Your task to perform on an android device: toggle javascript in the chrome app Image 0: 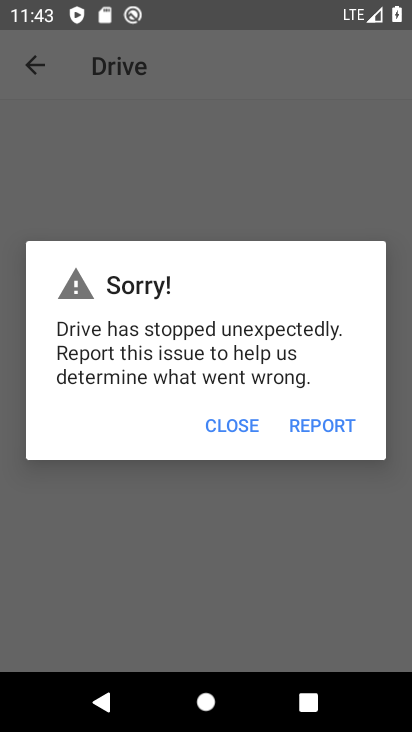
Step 0: drag from (322, 533) to (335, 126)
Your task to perform on an android device: toggle javascript in the chrome app Image 1: 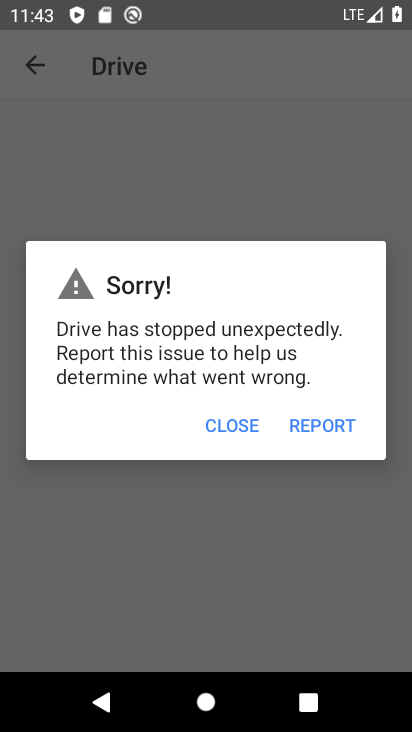
Step 1: press home button
Your task to perform on an android device: toggle javascript in the chrome app Image 2: 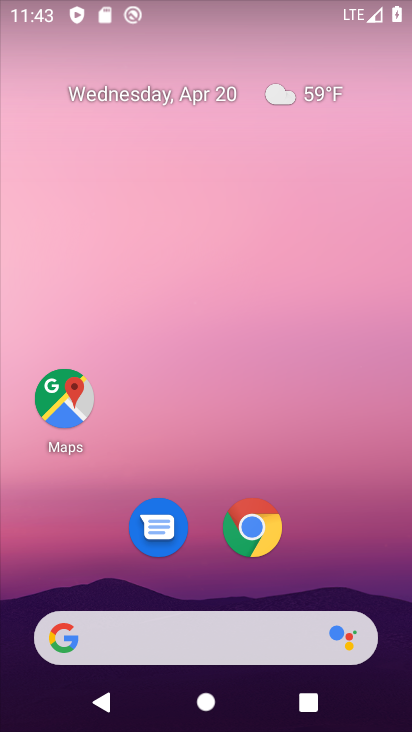
Step 2: drag from (380, 547) to (392, 148)
Your task to perform on an android device: toggle javascript in the chrome app Image 3: 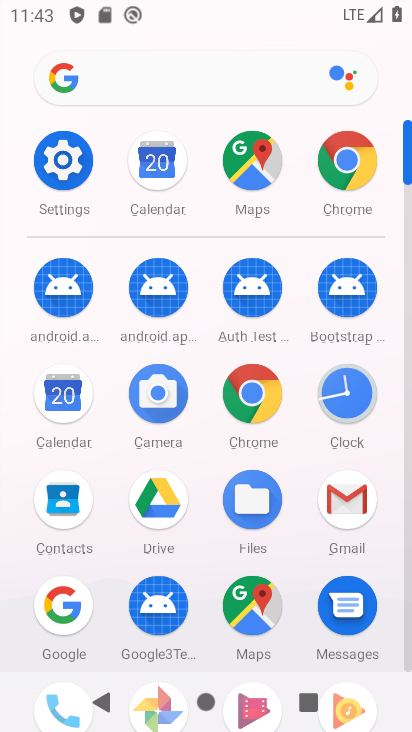
Step 3: click (269, 405)
Your task to perform on an android device: toggle javascript in the chrome app Image 4: 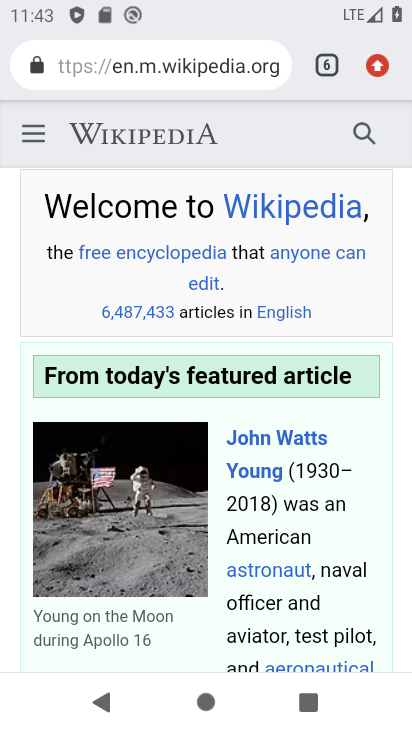
Step 4: drag from (387, 74) to (217, 566)
Your task to perform on an android device: toggle javascript in the chrome app Image 5: 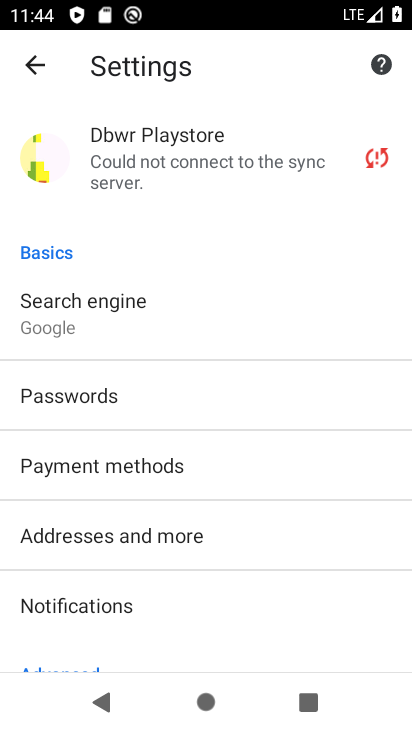
Step 5: drag from (280, 575) to (266, 260)
Your task to perform on an android device: toggle javascript in the chrome app Image 6: 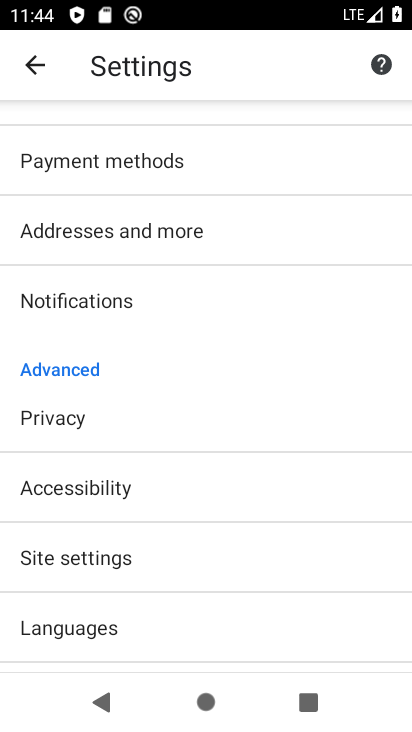
Step 6: click (270, 560)
Your task to perform on an android device: toggle javascript in the chrome app Image 7: 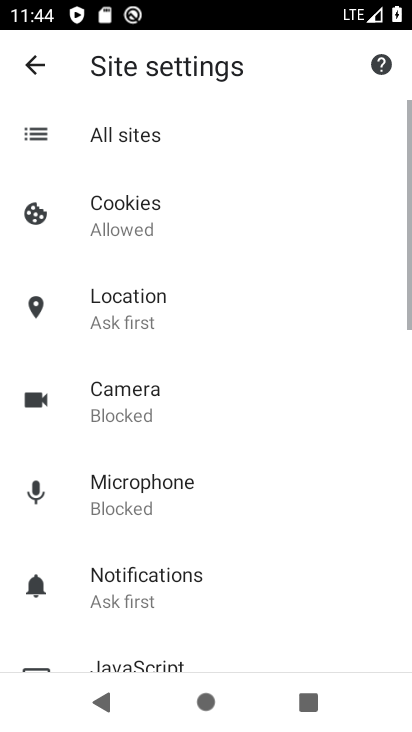
Step 7: drag from (278, 583) to (280, 284)
Your task to perform on an android device: toggle javascript in the chrome app Image 8: 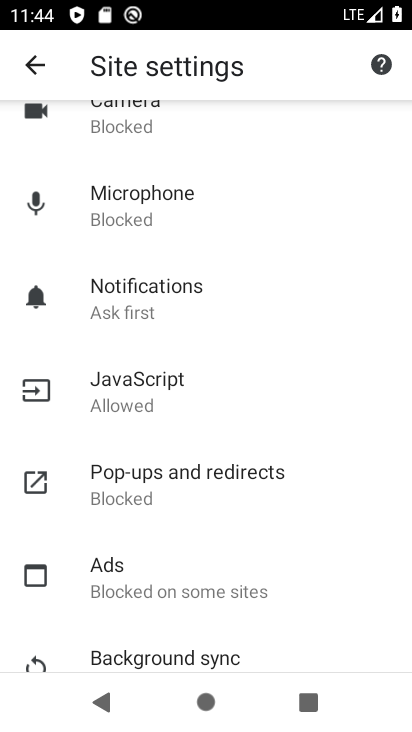
Step 8: click (193, 390)
Your task to perform on an android device: toggle javascript in the chrome app Image 9: 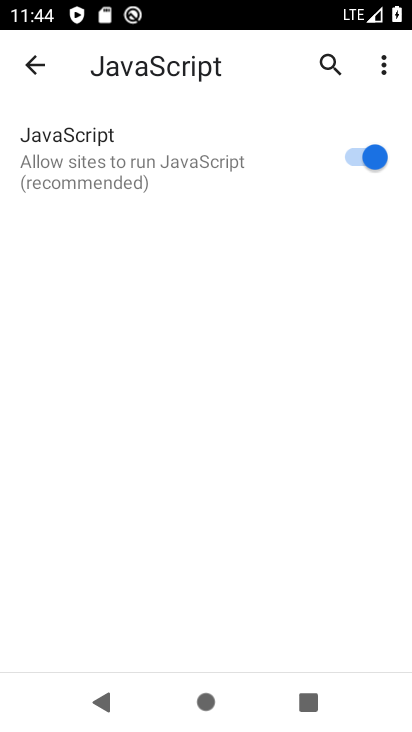
Step 9: click (350, 153)
Your task to perform on an android device: toggle javascript in the chrome app Image 10: 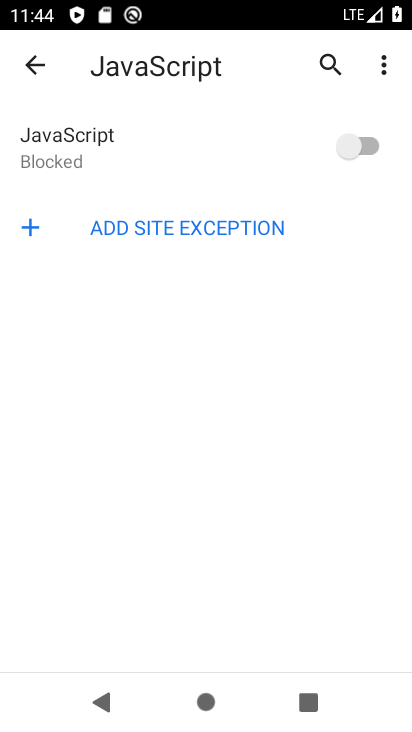
Step 10: task complete